Your task to perform on an android device: Open notification settings Image 0: 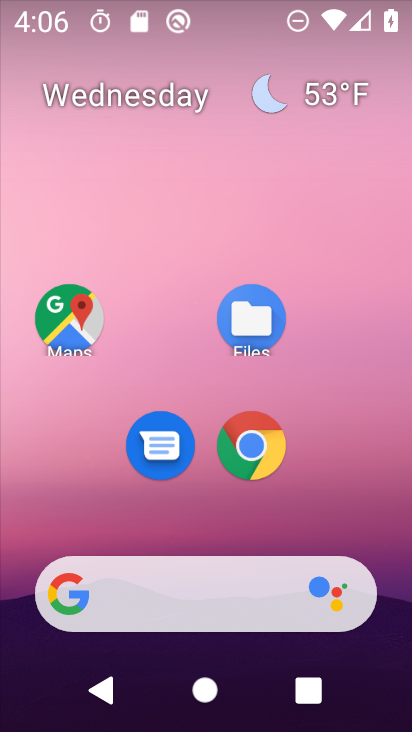
Step 0: drag from (323, 506) to (348, 131)
Your task to perform on an android device: Open notification settings Image 1: 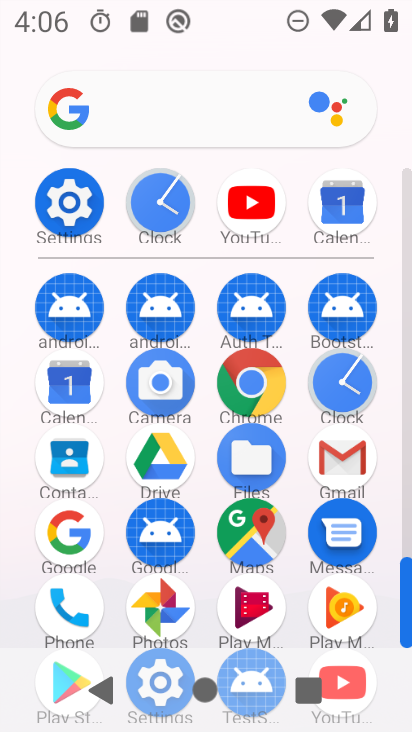
Step 1: click (58, 223)
Your task to perform on an android device: Open notification settings Image 2: 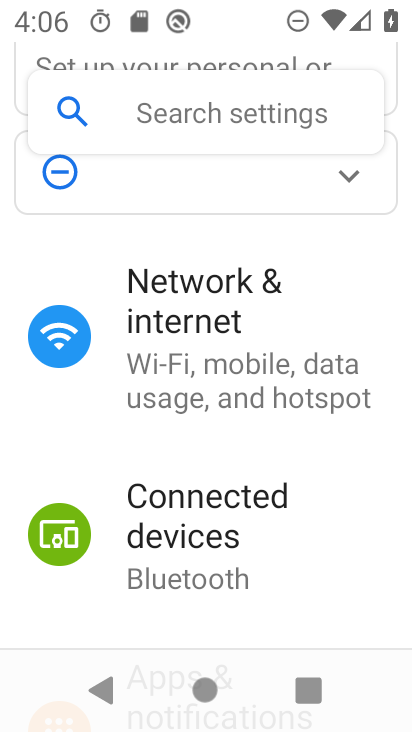
Step 2: drag from (362, 592) to (401, 335)
Your task to perform on an android device: Open notification settings Image 3: 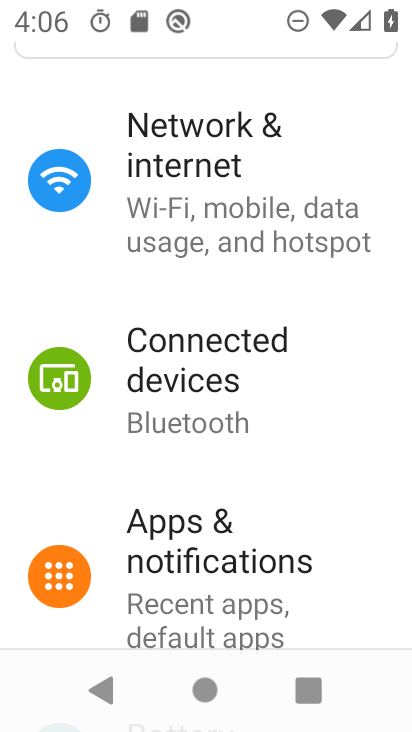
Step 3: click (247, 581)
Your task to perform on an android device: Open notification settings Image 4: 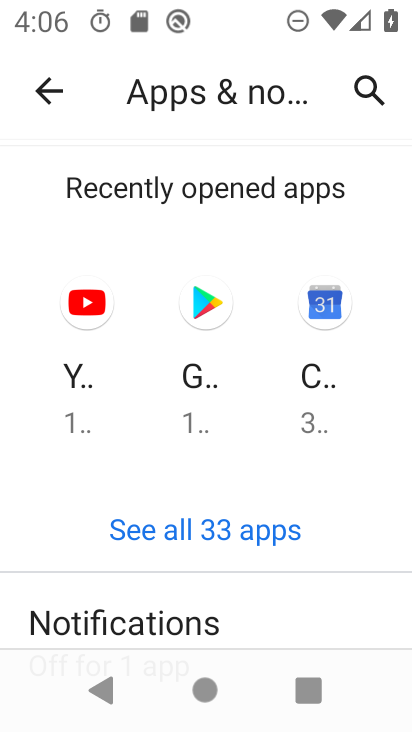
Step 4: click (237, 611)
Your task to perform on an android device: Open notification settings Image 5: 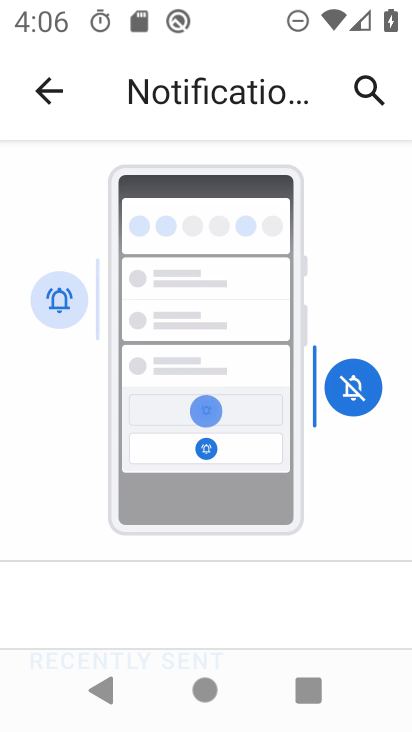
Step 5: task complete